Your task to perform on an android device: turn on notifications settings in the gmail app Image 0: 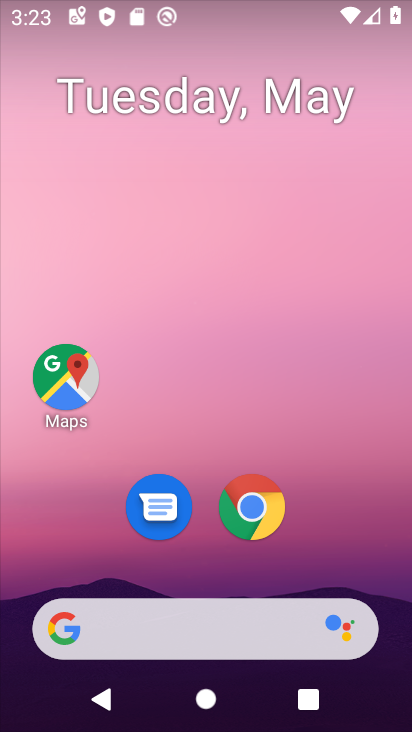
Step 0: drag from (313, 575) to (344, 20)
Your task to perform on an android device: turn on notifications settings in the gmail app Image 1: 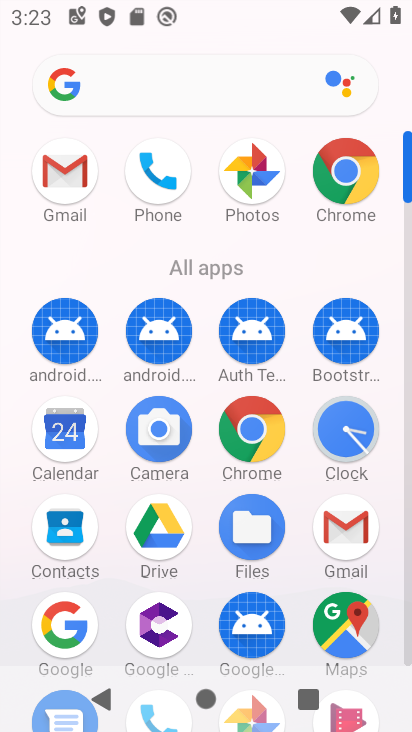
Step 1: click (343, 527)
Your task to perform on an android device: turn on notifications settings in the gmail app Image 2: 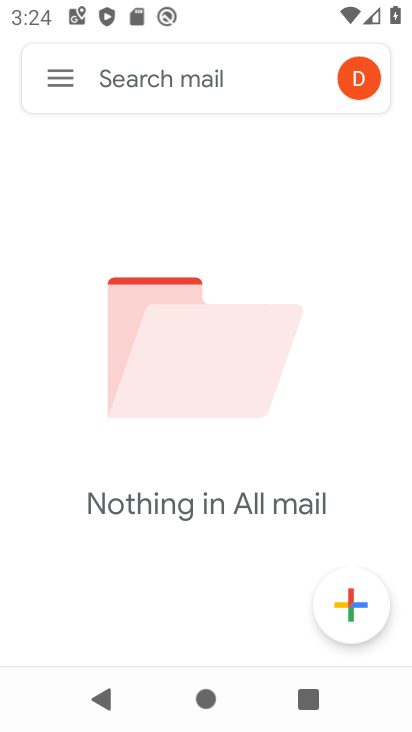
Step 2: click (63, 78)
Your task to perform on an android device: turn on notifications settings in the gmail app Image 3: 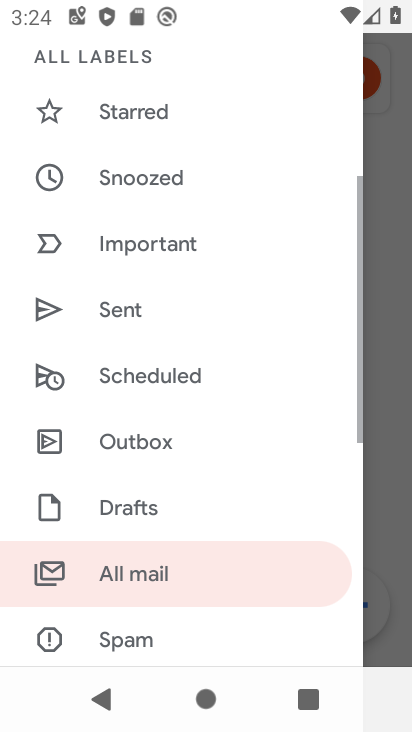
Step 3: drag from (169, 570) to (184, 138)
Your task to perform on an android device: turn on notifications settings in the gmail app Image 4: 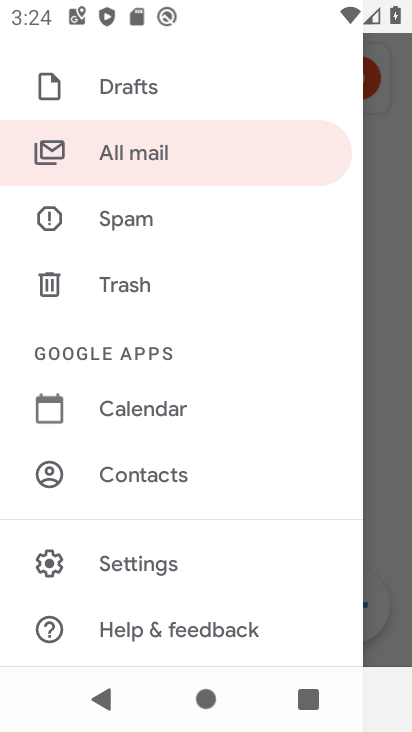
Step 4: click (144, 566)
Your task to perform on an android device: turn on notifications settings in the gmail app Image 5: 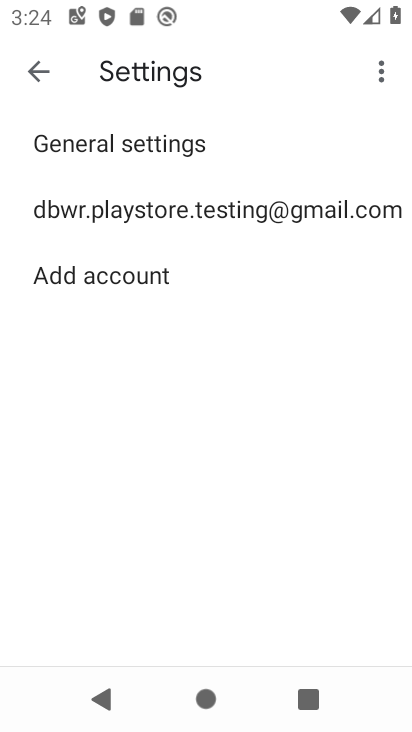
Step 5: click (100, 215)
Your task to perform on an android device: turn on notifications settings in the gmail app Image 6: 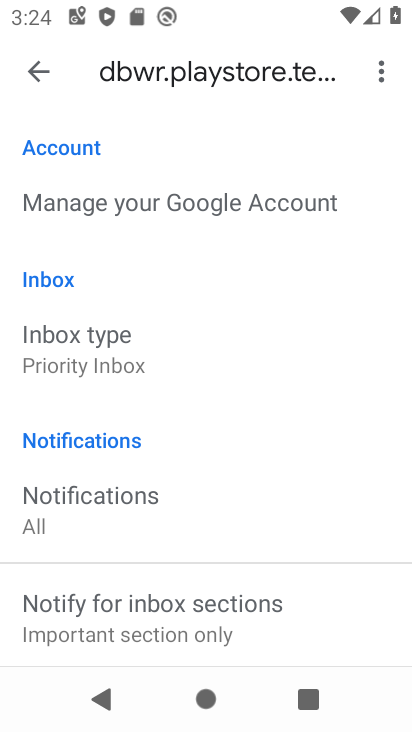
Step 6: drag from (152, 609) to (201, 200)
Your task to perform on an android device: turn on notifications settings in the gmail app Image 7: 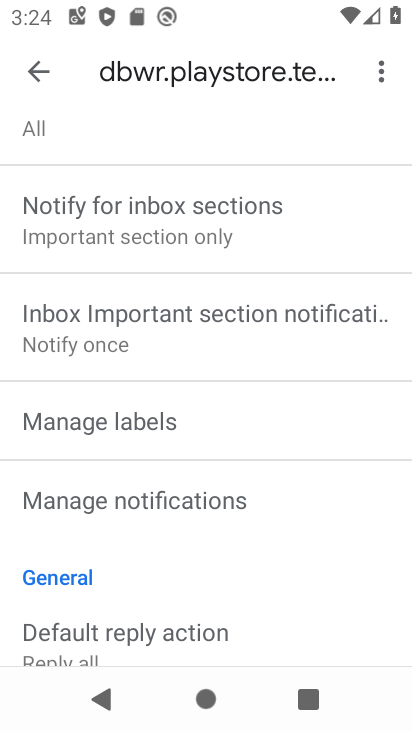
Step 7: click (169, 492)
Your task to perform on an android device: turn on notifications settings in the gmail app Image 8: 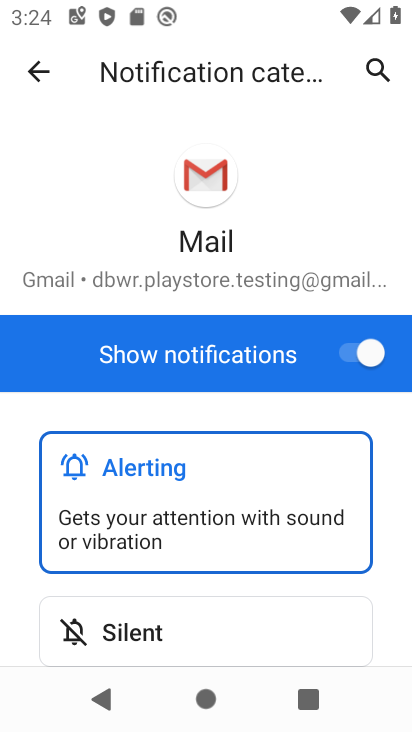
Step 8: task complete